Your task to perform on an android device: change keyboard looks Image 0: 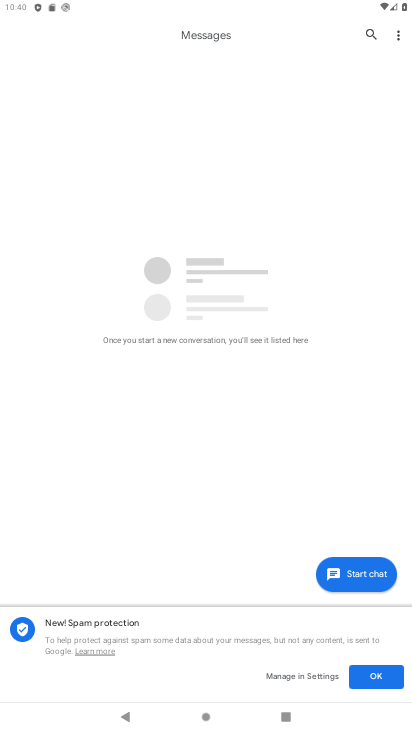
Step 0: press home button
Your task to perform on an android device: change keyboard looks Image 1: 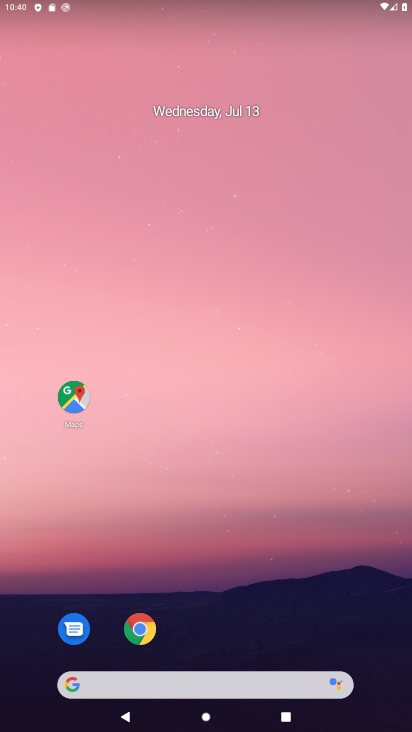
Step 1: drag from (231, 715) to (234, 177)
Your task to perform on an android device: change keyboard looks Image 2: 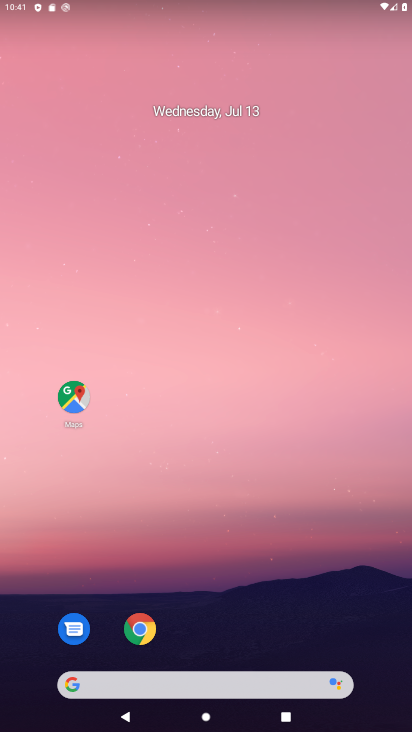
Step 2: drag from (234, 725) to (220, 461)
Your task to perform on an android device: change keyboard looks Image 3: 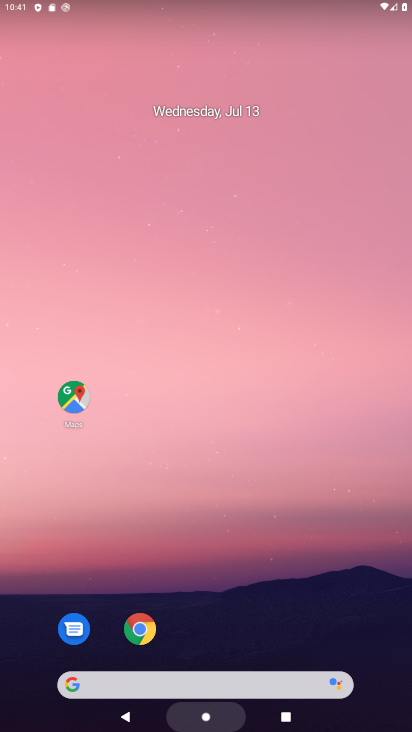
Step 3: click (219, 112)
Your task to perform on an android device: change keyboard looks Image 4: 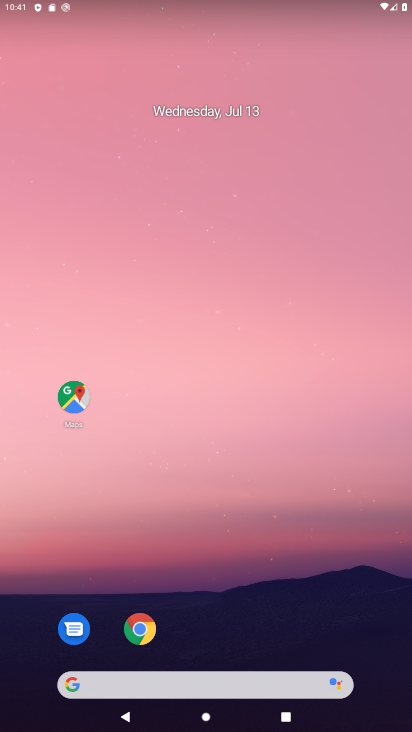
Step 4: drag from (253, 726) to (265, 53)
Your task to perform on an android device: change keyboard looks Image 5: 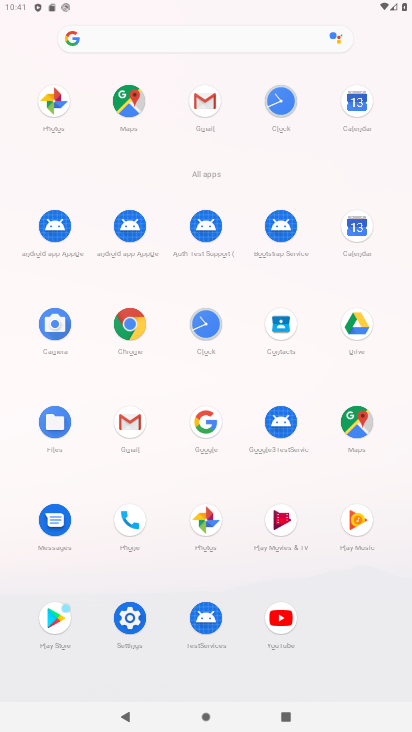
Step 5: click (123, 619)
Your task to perform on an android device: change keyboard looks Image 6: 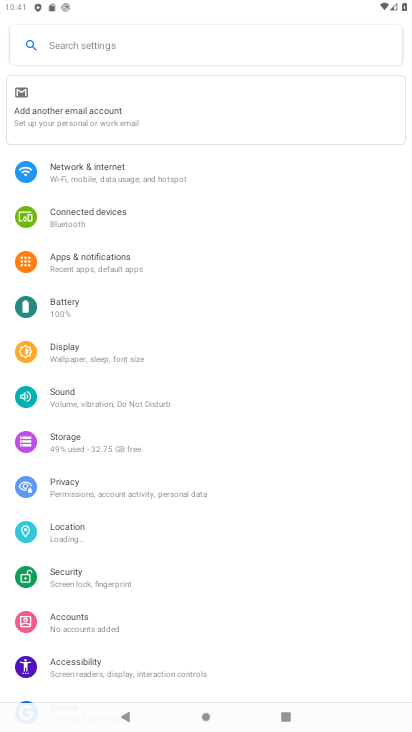
Step 6: drag from (108, 658) to (82, 250)
Your task to perform on an android device: change keyboard looks Image 7: 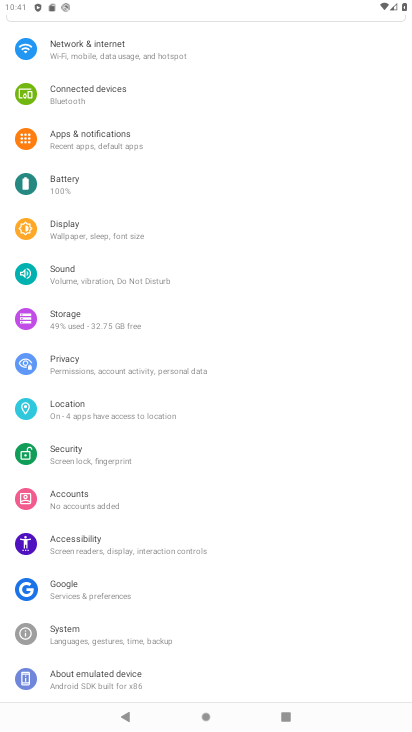
Step 7: click (71, 637)
Your task to perform on an android device: change keyboard looks Image 8: 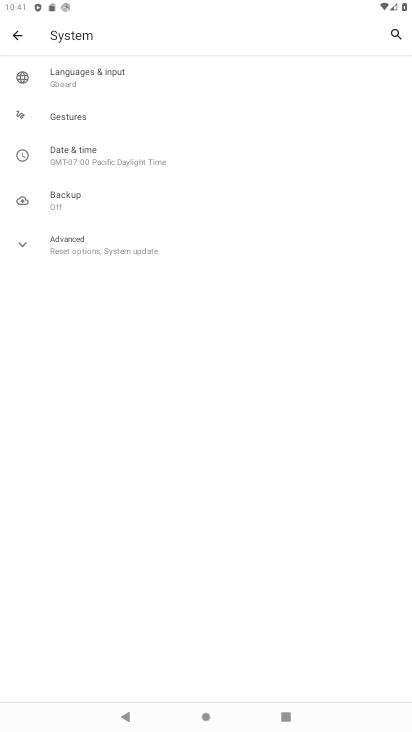
Step 8: click (64, 71)
Your task to perform on an android device: change keyboard looks Image 9: 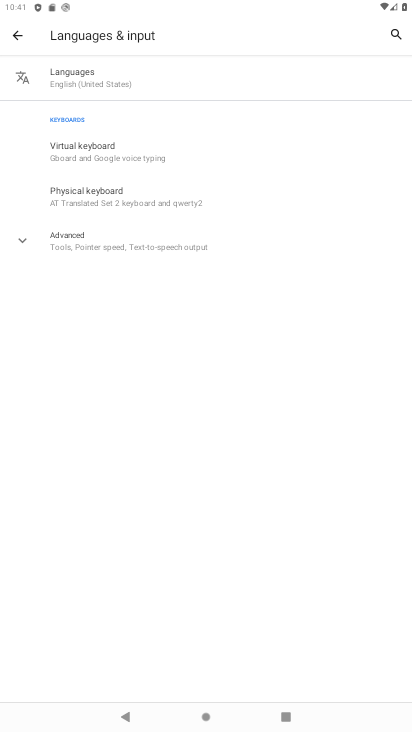
Step 9: click (93, 155)
Your task to perform on an android device: change keyboard looks Image 10: 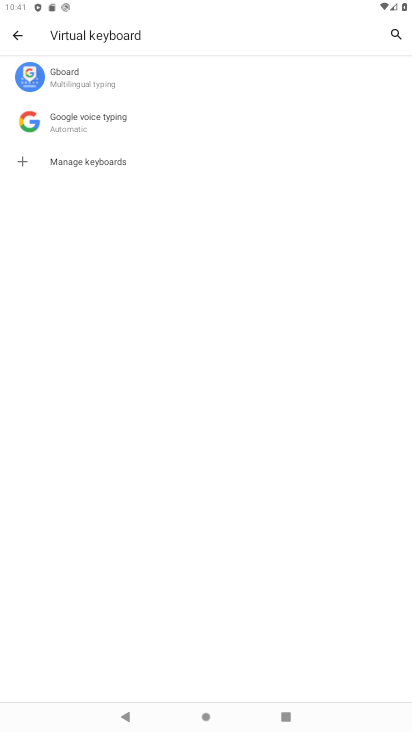
Step 10: click (65, 68)
Your task to perform on an android device: change keyboard looks Image 11: 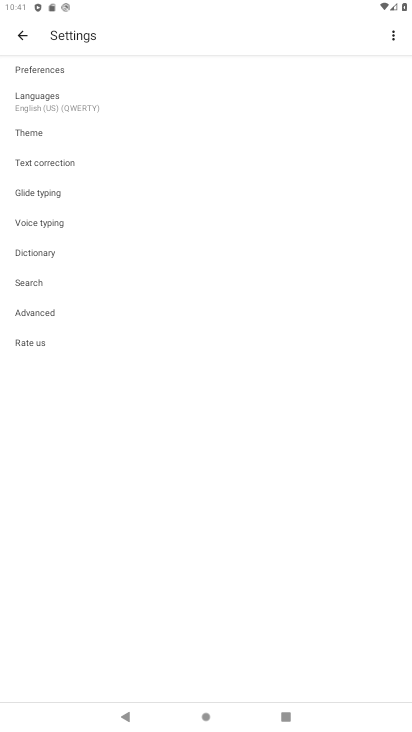
Step 11: click (30, 132)
Your task to perform on an android device: change keyboard looks Image 12: 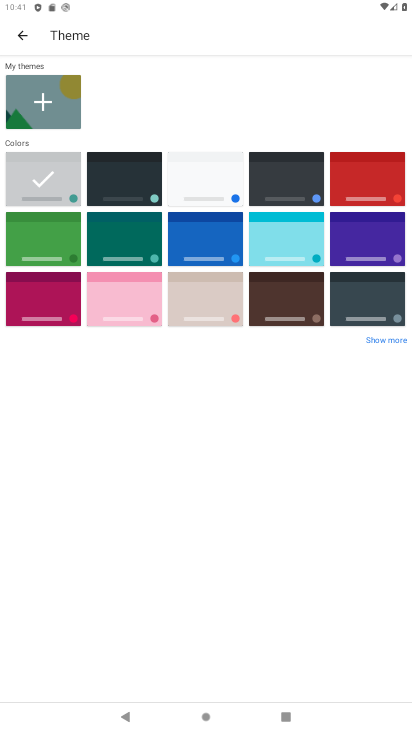
Step 12: click (109, 178)
Your task to perform on an android device: change keyboard looks Image 13: 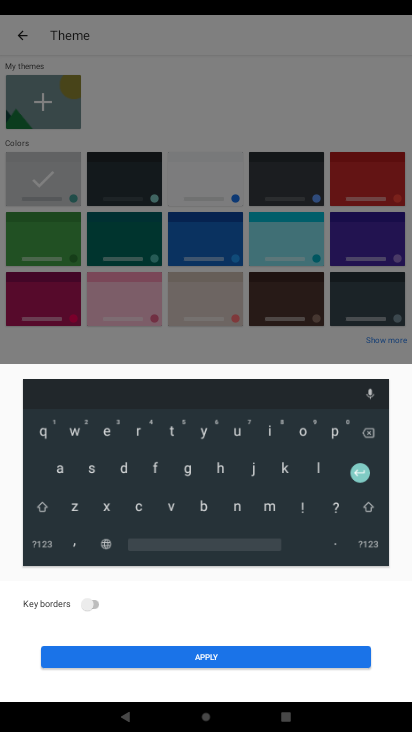
Step 13: click (95, 601)
Your task to perform on an android device: change keyboard looks Image 14: 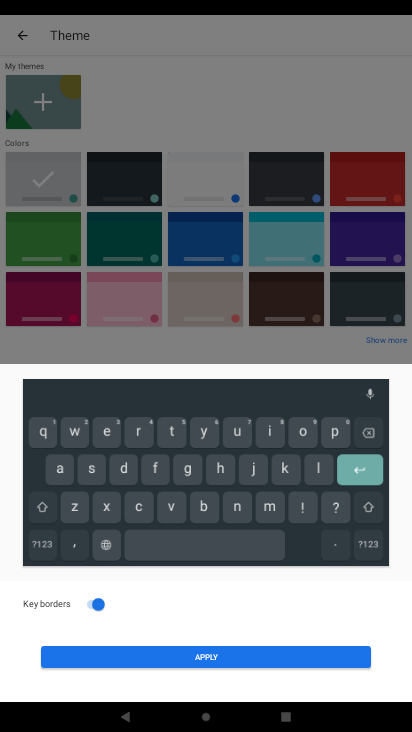
Step 14: click (189, 652)
Your task to perform on an android device: change keyboard looks Image 15: 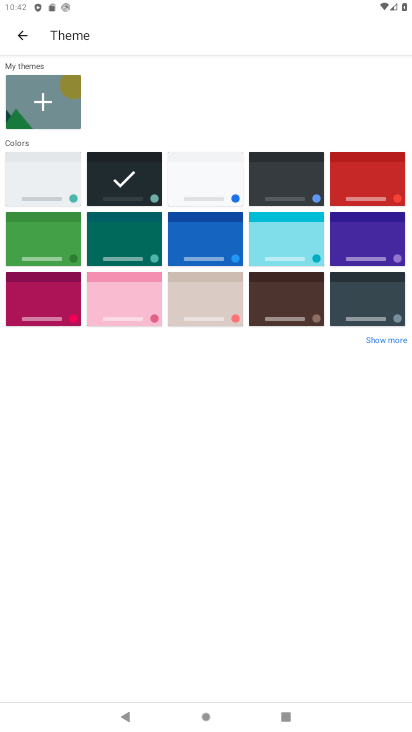
Step 15: task complete